Your task to perform on an android device: Open maps Image 0: 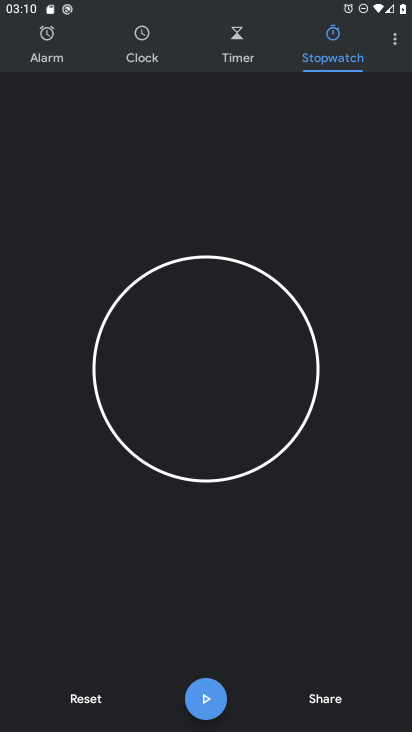
Step 0: press home button
Your task to perform on an android device: Open maps Image 1: 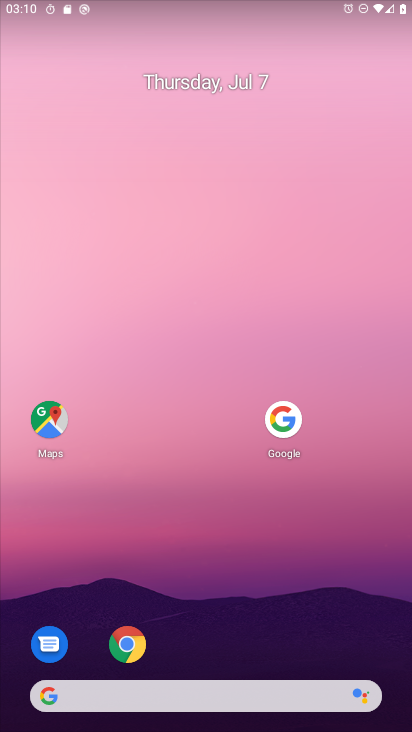
Step 1: click (57, 422)
Your task to perform on an android device: Open maps Image 2: 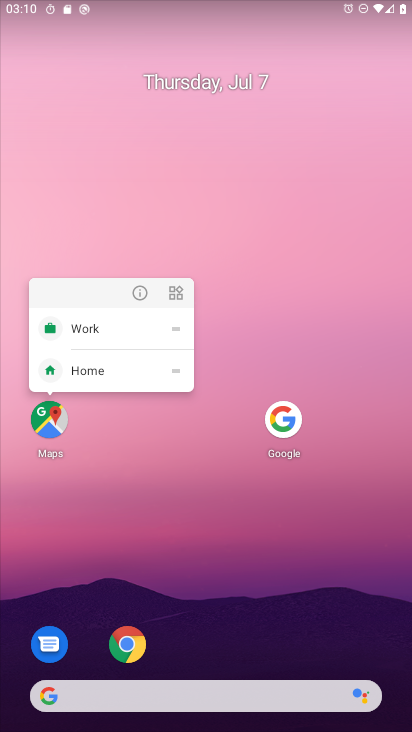
Step 2: click (39, 419)
Your task to perform on an android device: Open maps Image 3: 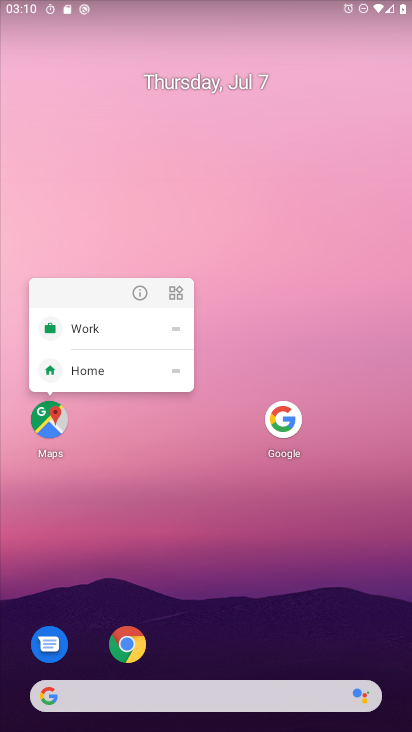
Step 3: click (52, 424)
Your task to perform on an android device: Open maps Image 4: 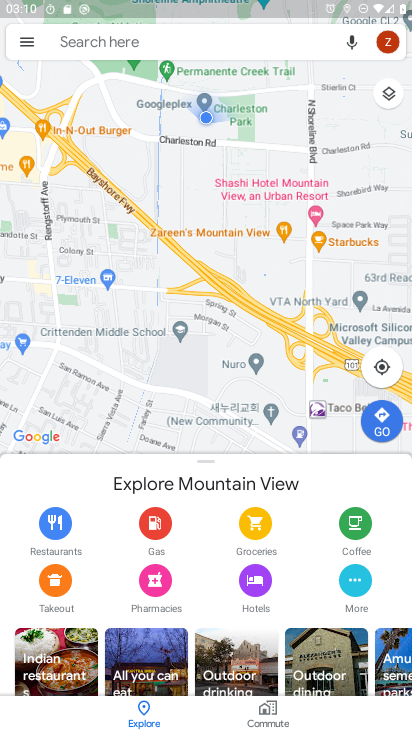
Step 4: task complete